Your task to perform on an android device: Search for "jbl flip 4" on walmart.com, select the first entry, and add it to the cart. Image 0: 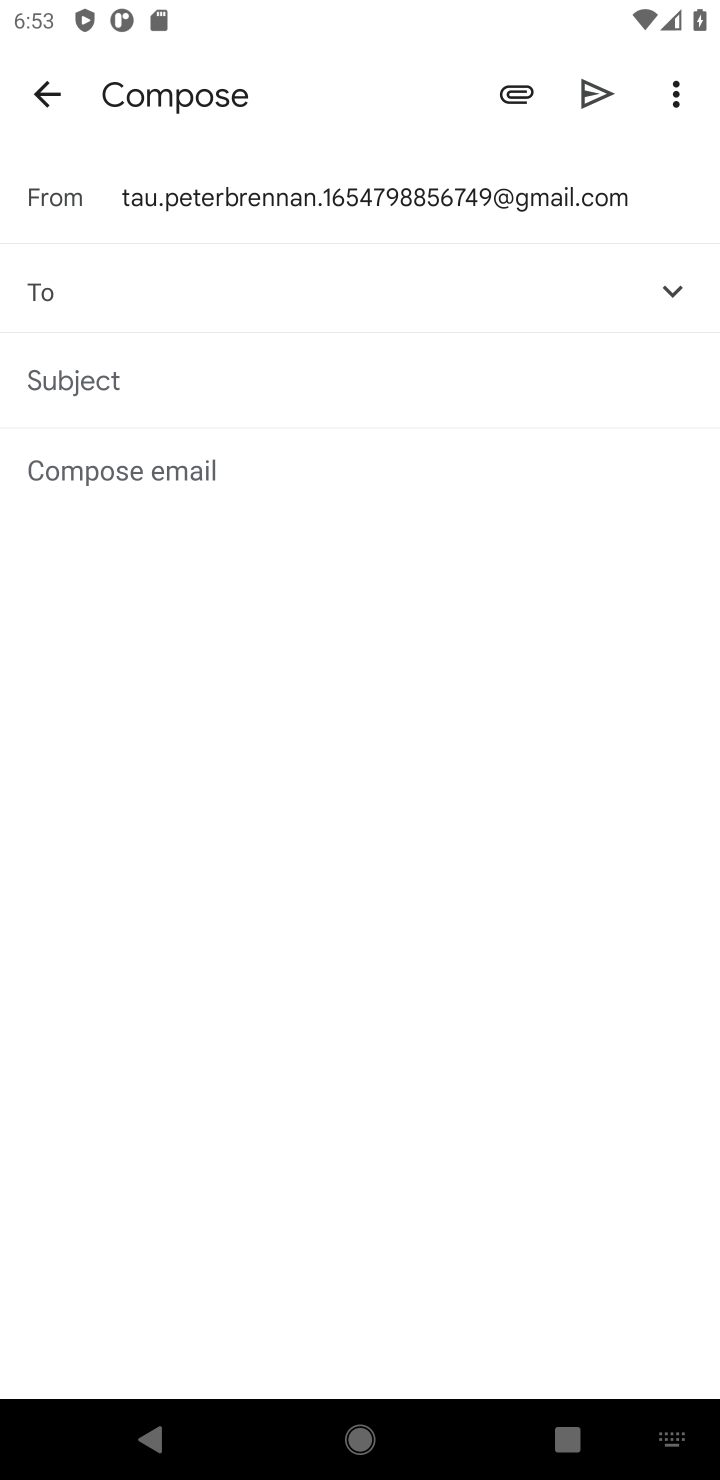
Step 0: press home button
Your task to perform on an android device: Search for "jbl flip 4" on walmart.com, select the first entry, and add it to the cart. Image 1: 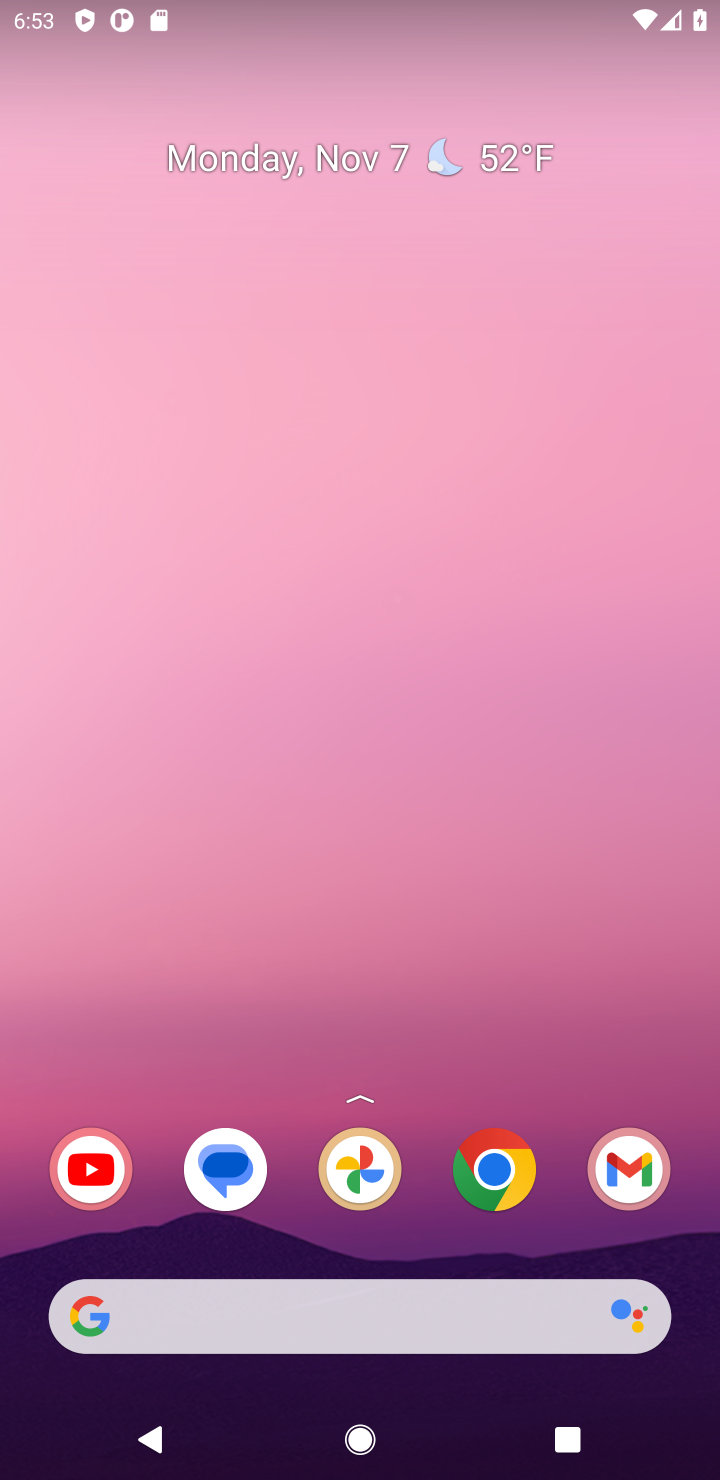
Step 1: click (502, 1163)
Your task to perform on an android device: Search for "jbl flip 4" on walmart.com, select the first entry, and add it to the cart. Image 2: 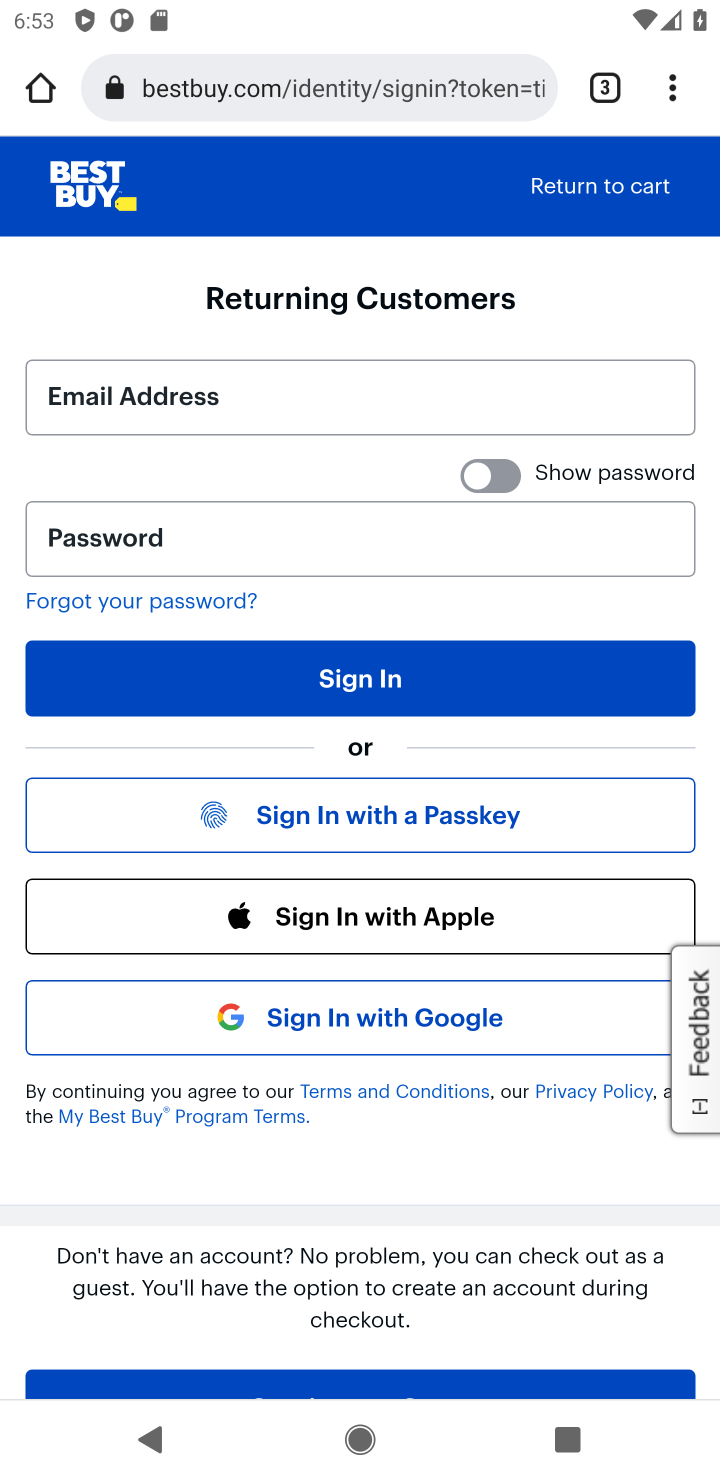
Step 2: click (598, 80)
Your task to perform on an android device: Search for "jbl flip 4" on walmart.com, select the first entry, and add it to the cart. Image 3: 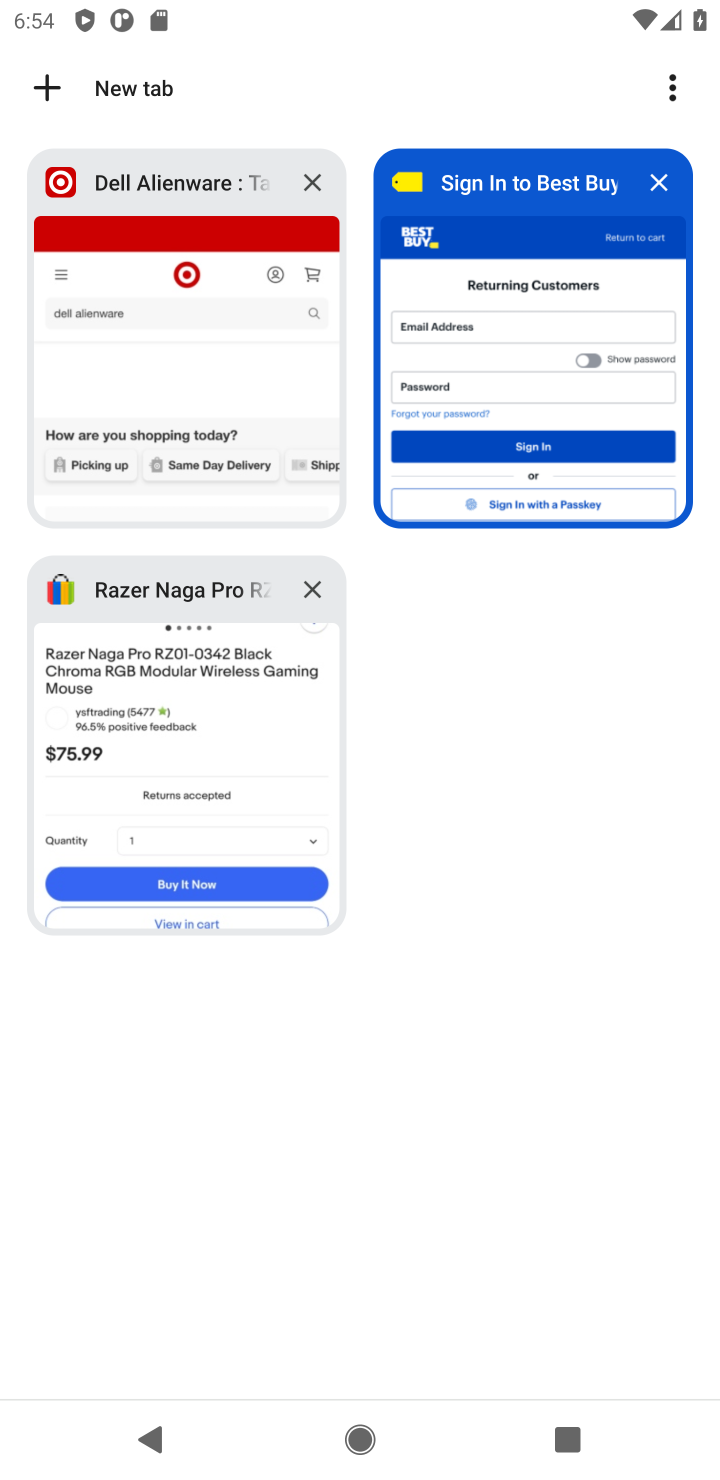
Step 3: click (46, 94)
Your task to perform on an android device: Search for "jbl flip 4" on walmart.com, select the first entry, and add it to the cart. Image 4: 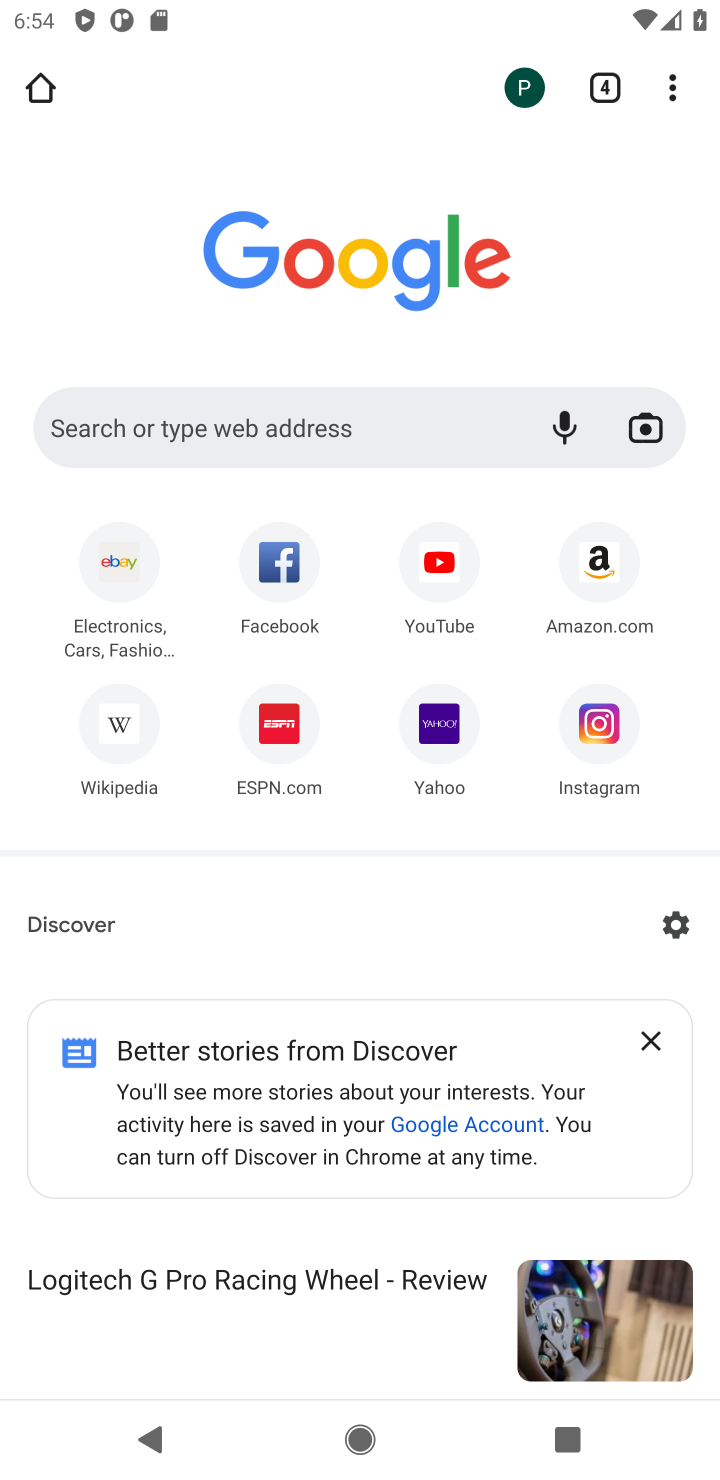
Step 4: click (249, 417)
Your task to perform on an android device: Search for "jbl flip 4" on walmart.com, select the first entry, and add it to the cart. Image 5: 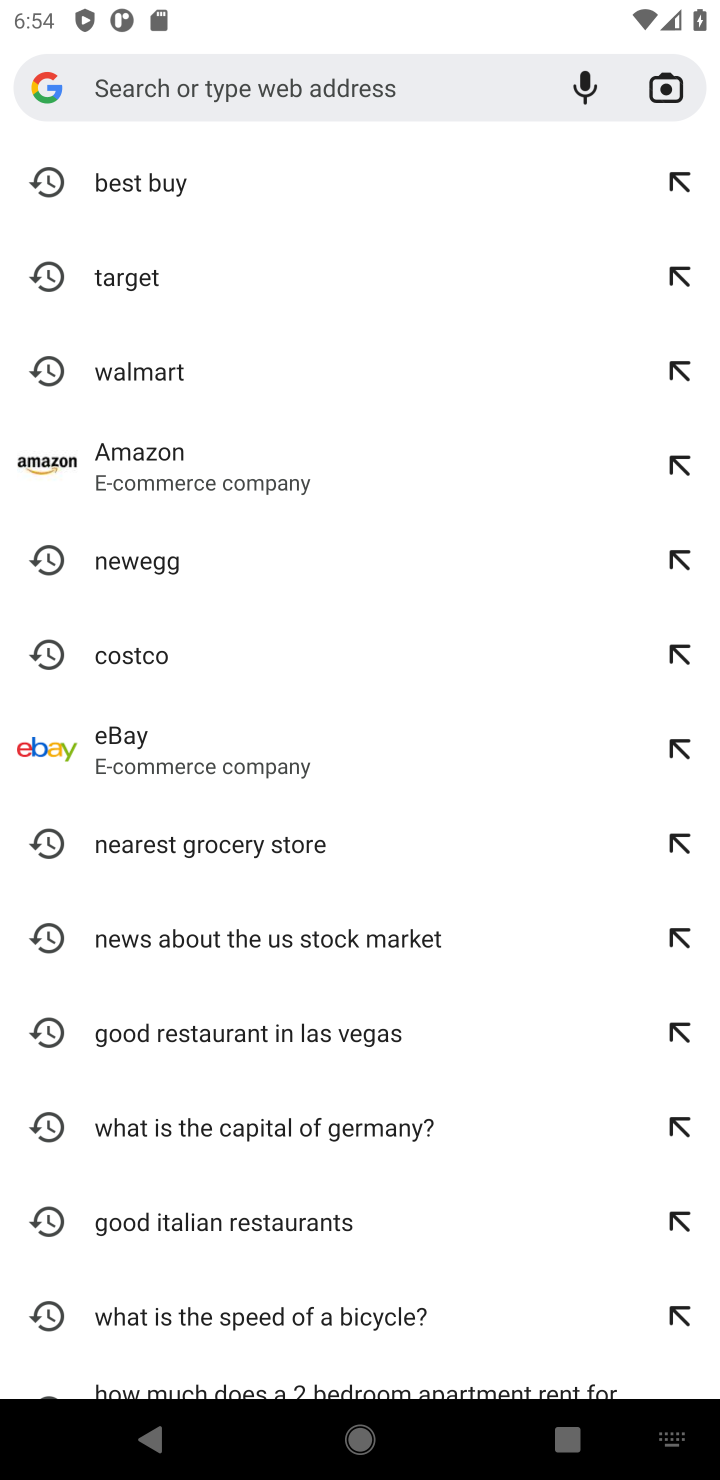
Step 5: click (166, 378)
Your task to perform on an android device: Search for "jbl flip 4" on walmart.com, select the first entry, and add it to the cart. Image 6: 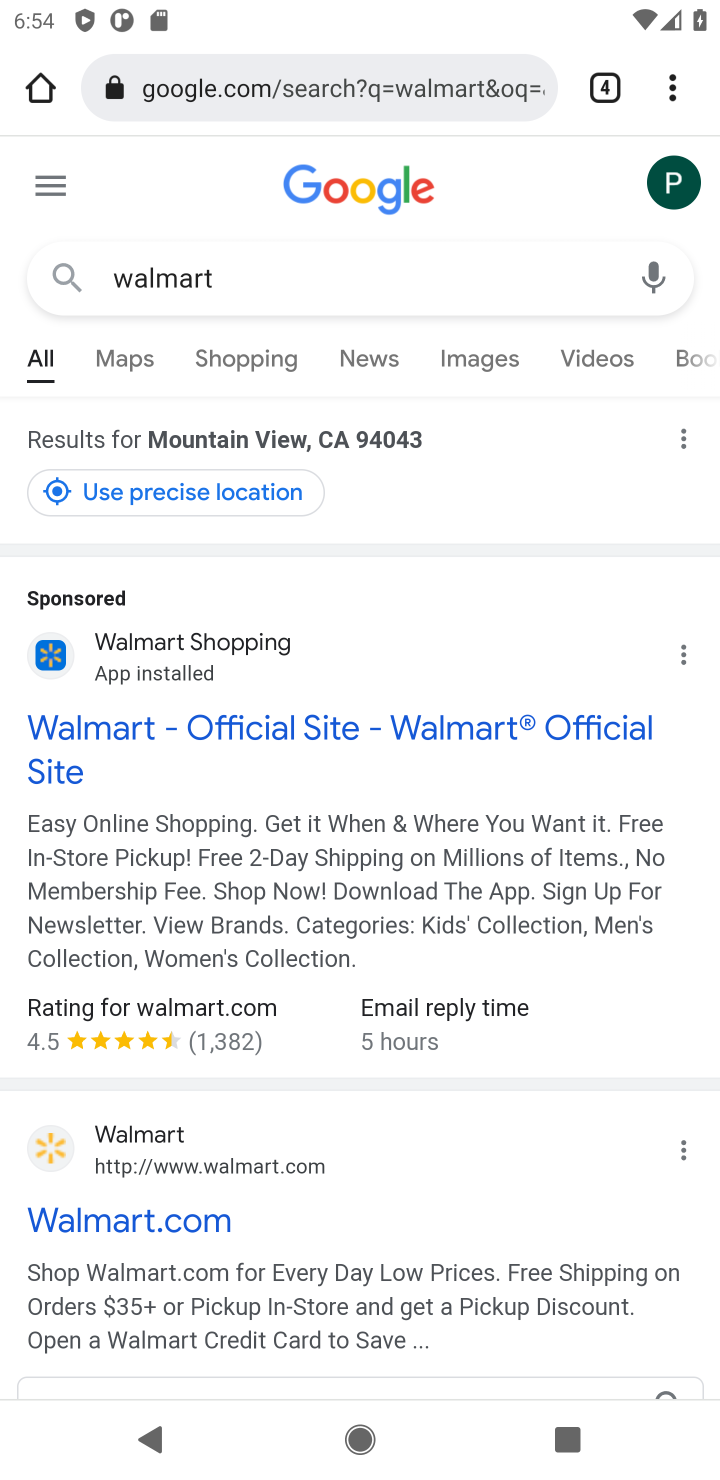
Step 6: drag from (241, 1342) to (438, 669)
Your task to perform on an android device: Search for "jbl flip 4" on walmart.com, select the first entry, and add it to the cart. Image 7: 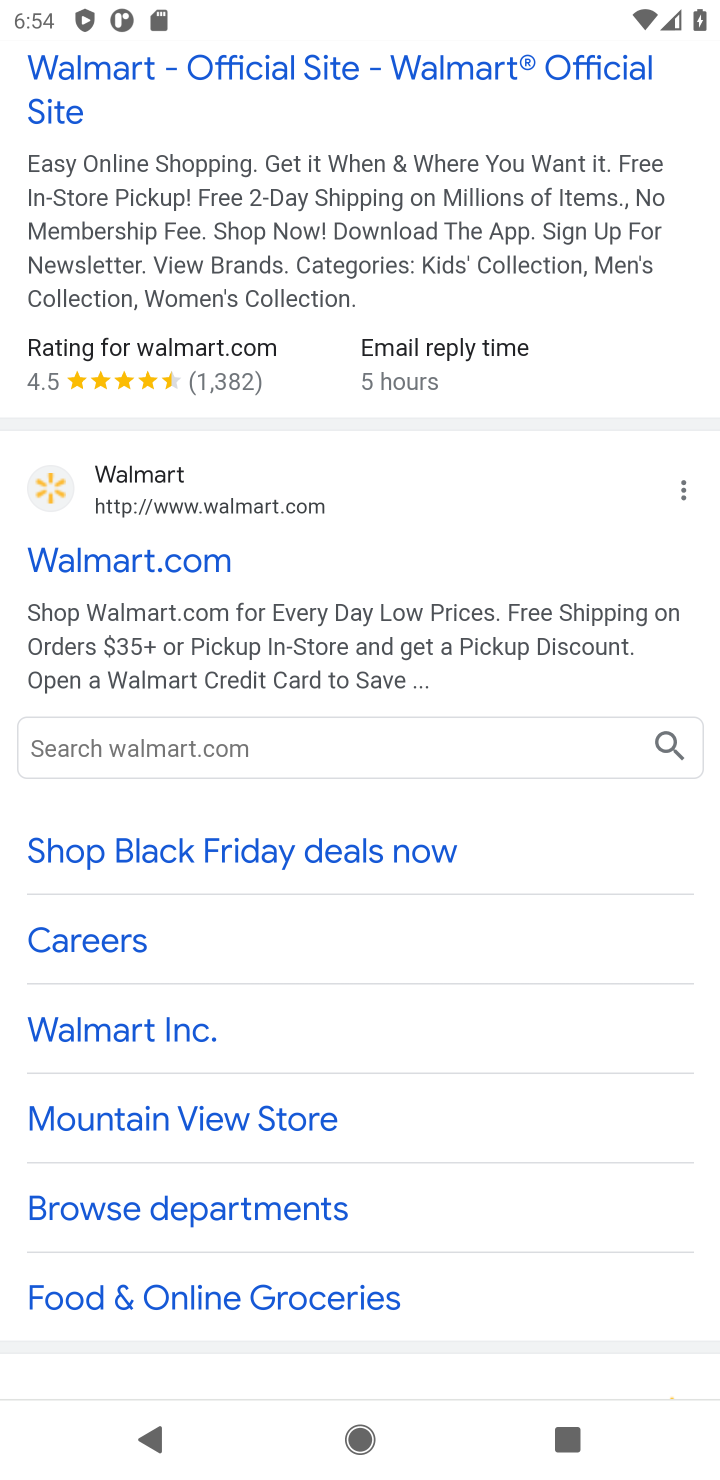
Step 7: click (59, 740)
Your task to perform on an android device: Search for "jbl flip 4" on walmart.com, select the first entry, and add it to the cart. Image 8: 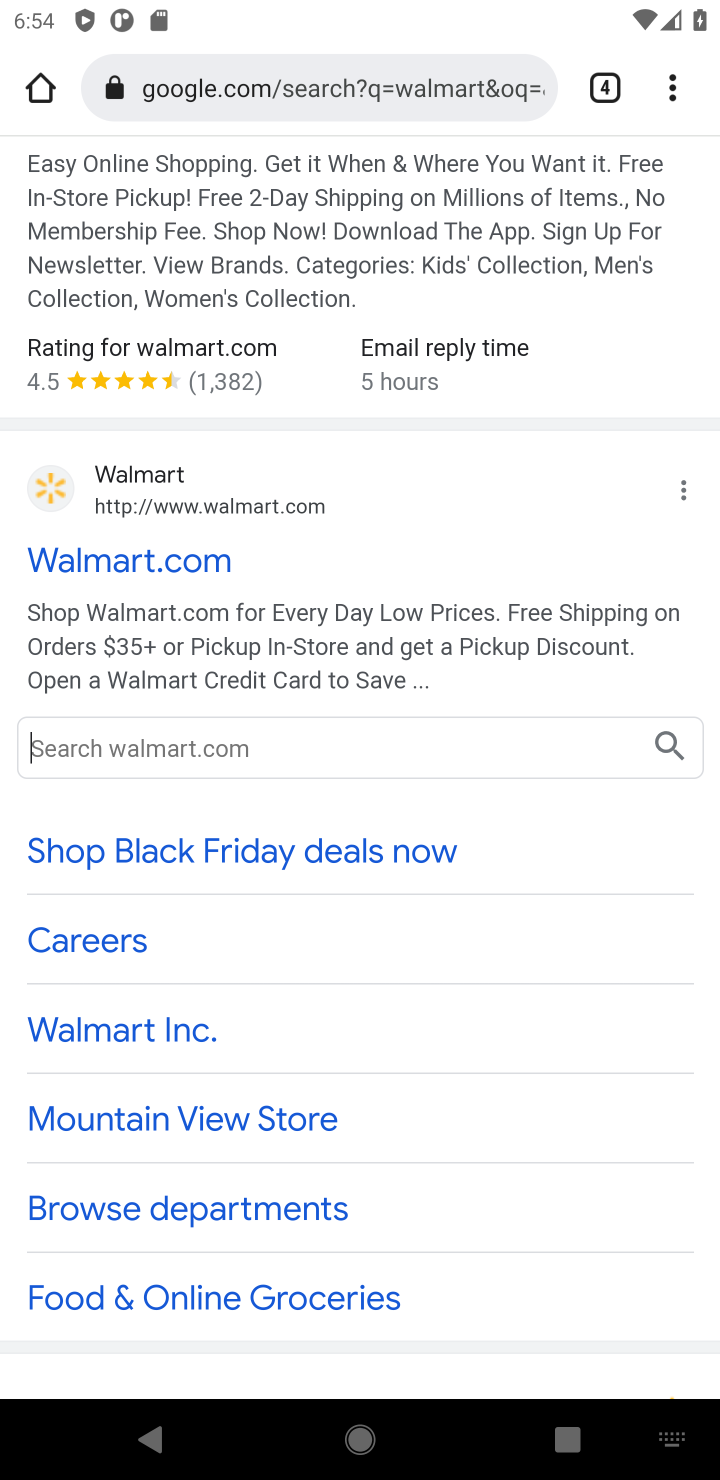
Step 8: type "jbl flip 4"
Your task to perform on an android device: Search for "jbl flip 4" on walmart.com, select the first entry, and add it to the cart. Image 9: 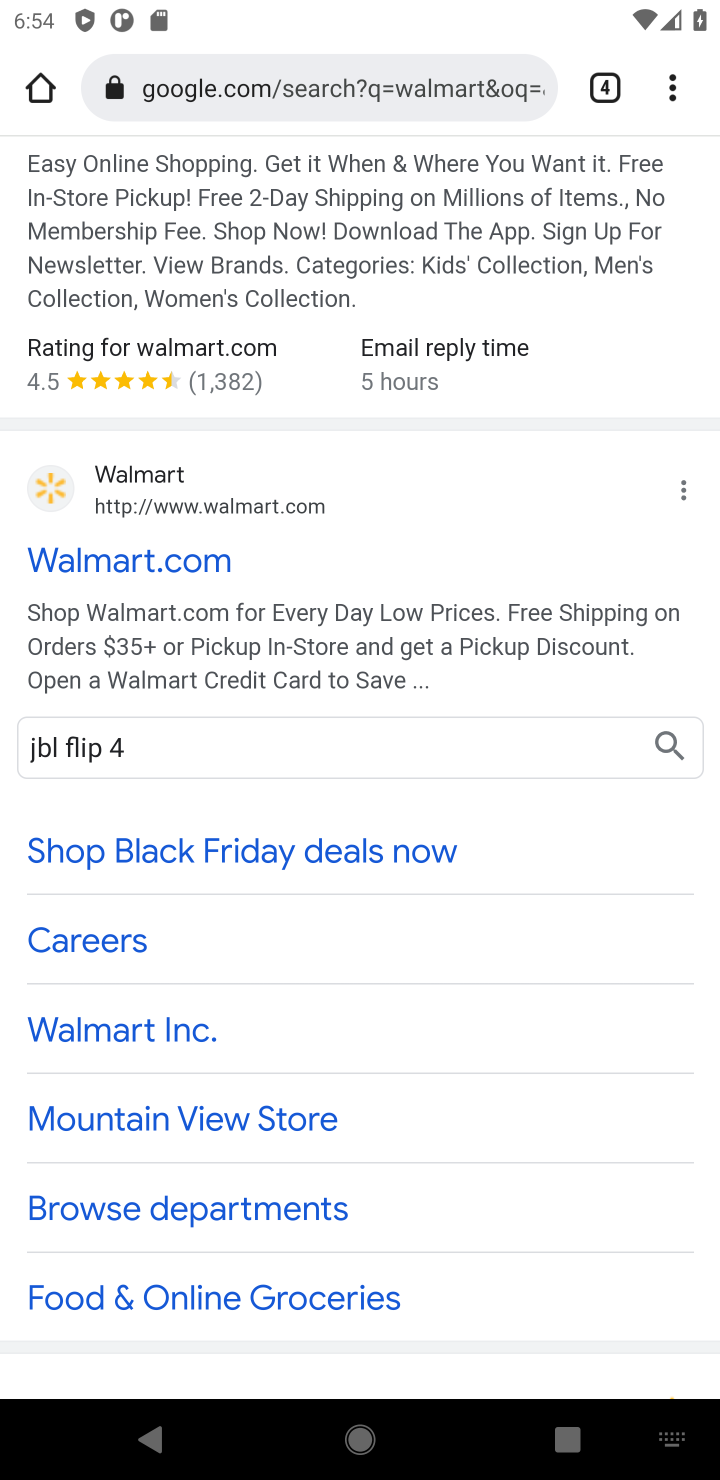
Step 9: click (679, 730)
Your task to perform on an android device: Search for "jbl flip 4" on walmart.com, select the first entry, and add it to the cart. Image 10: 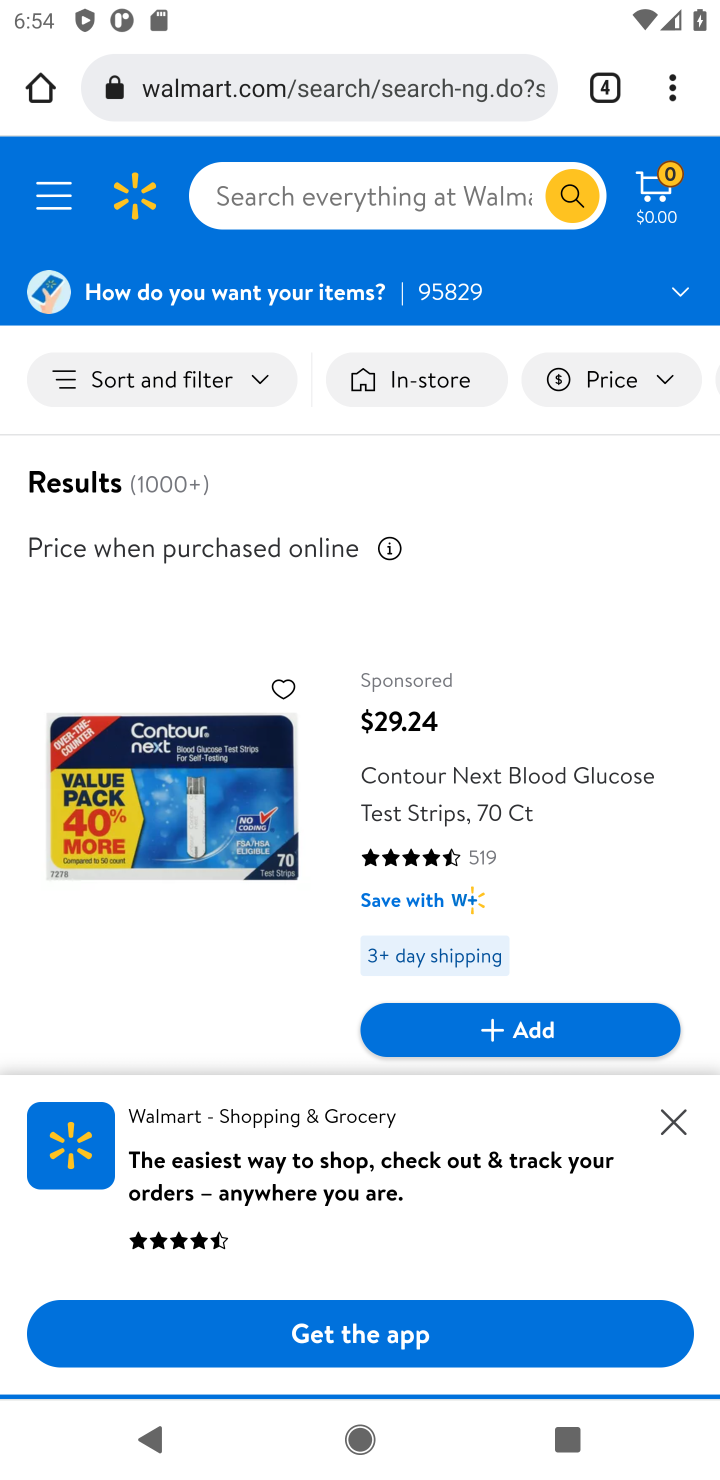
Step 10: click (672, 1111)
Your task to perform on an android device: Search for "jbl flip 4" on walmart.com, select the first entry, and add it to the cart. Image 11: 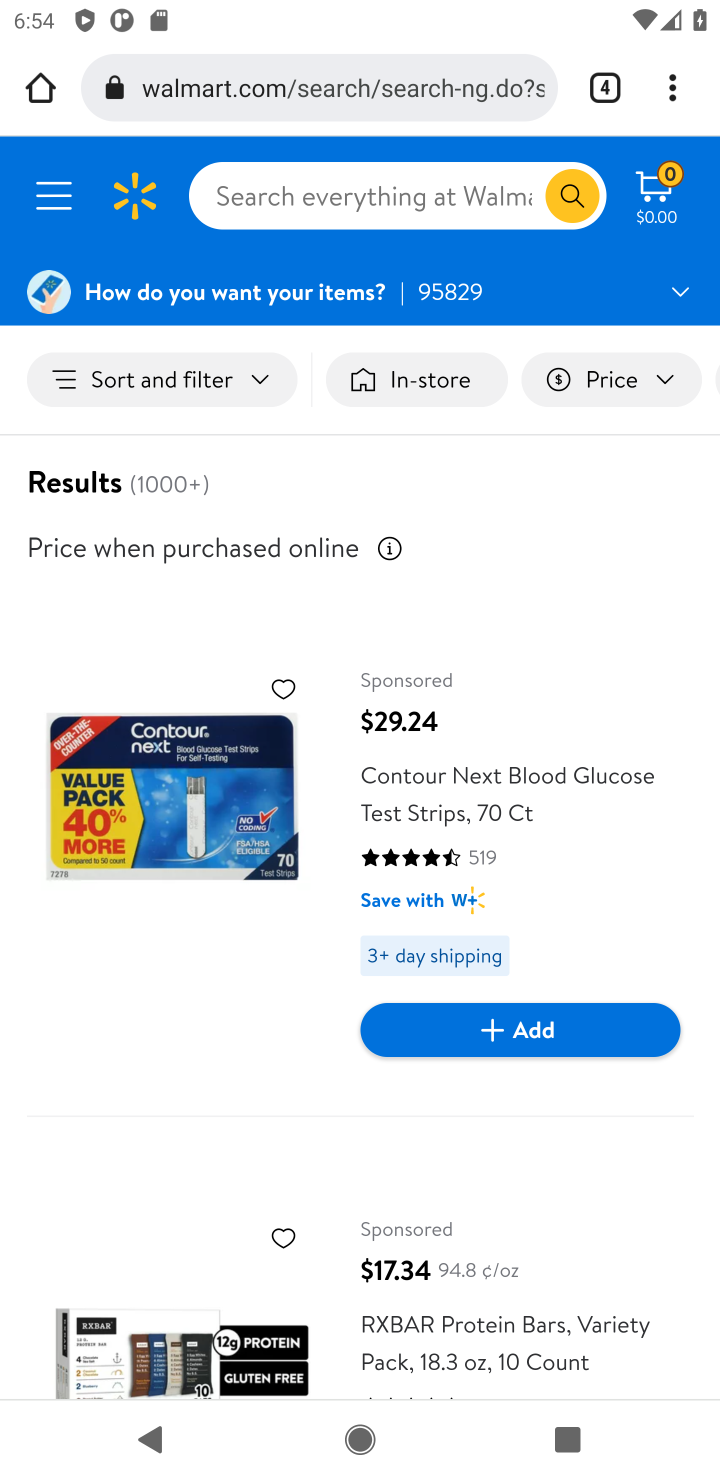
Step 11: click (317, 186)
Your task to perform on an android device: Search for "jbl flip 4" on walmart.com, select the first entry, and add it to the cart. Image 12: 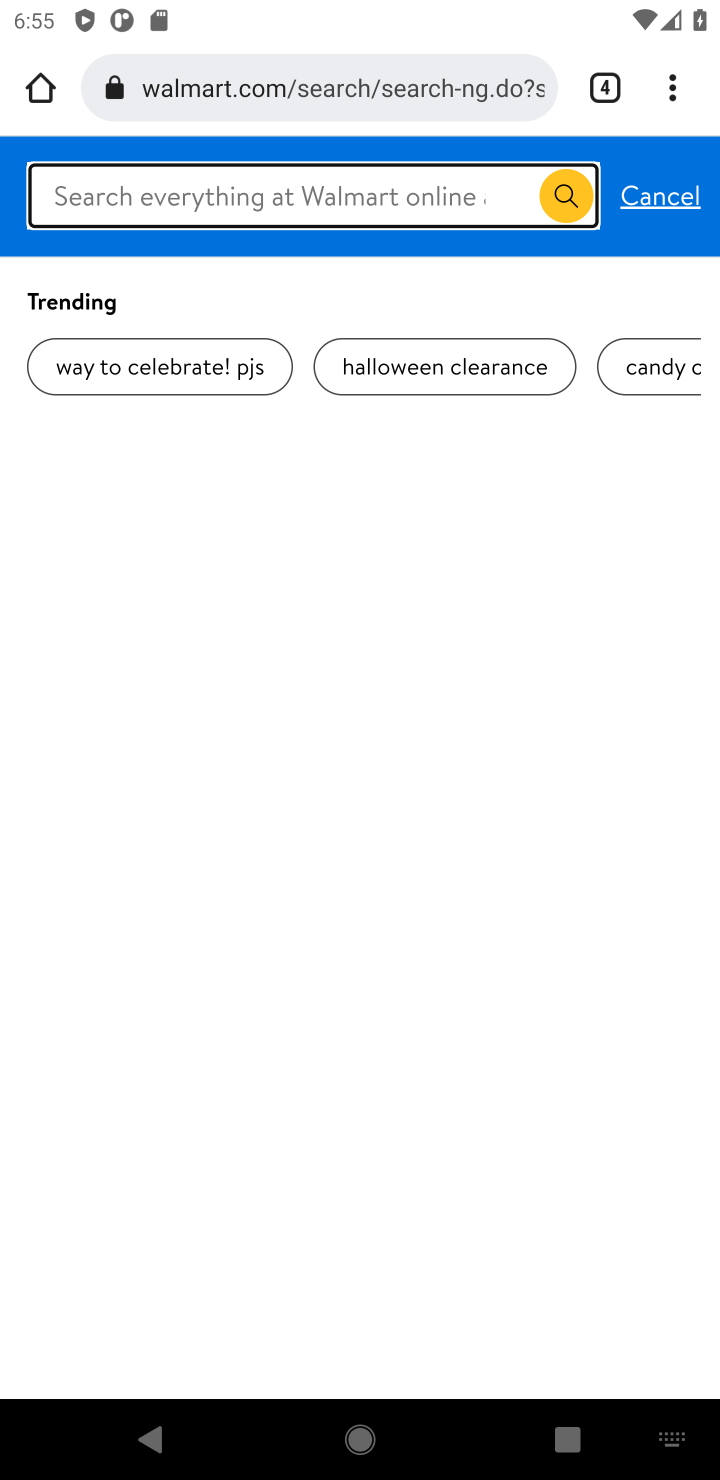
Step 12: type "jbl flip 4"
Your task to perform on an android device: Search for "jbl flip 4" on walmart.com, select the first entry, and add it to the cart. Image 13: 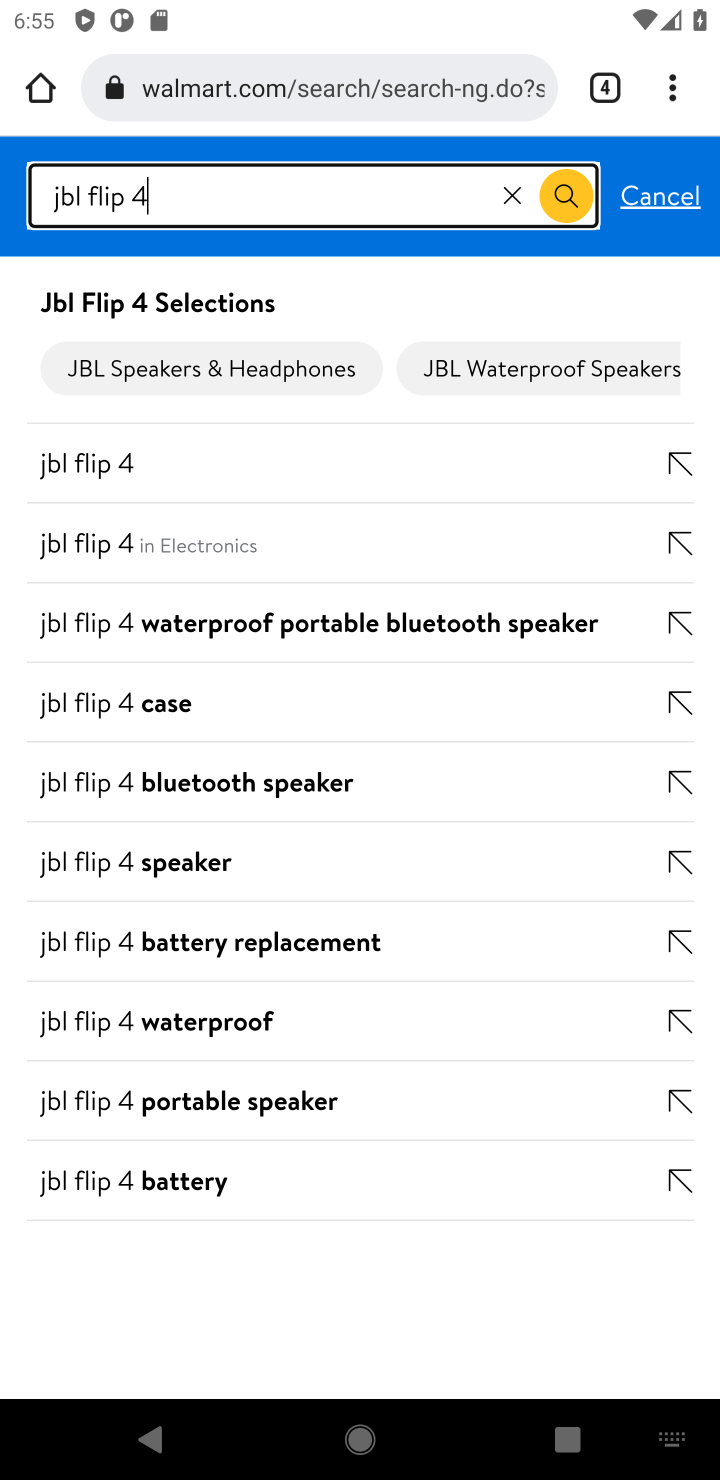
Step 13: click (96, 523)
Your task to perform on an android device: Search for "jbl flip 4" on walmart.com, select the first entry, and add it to the cart. Image 14: 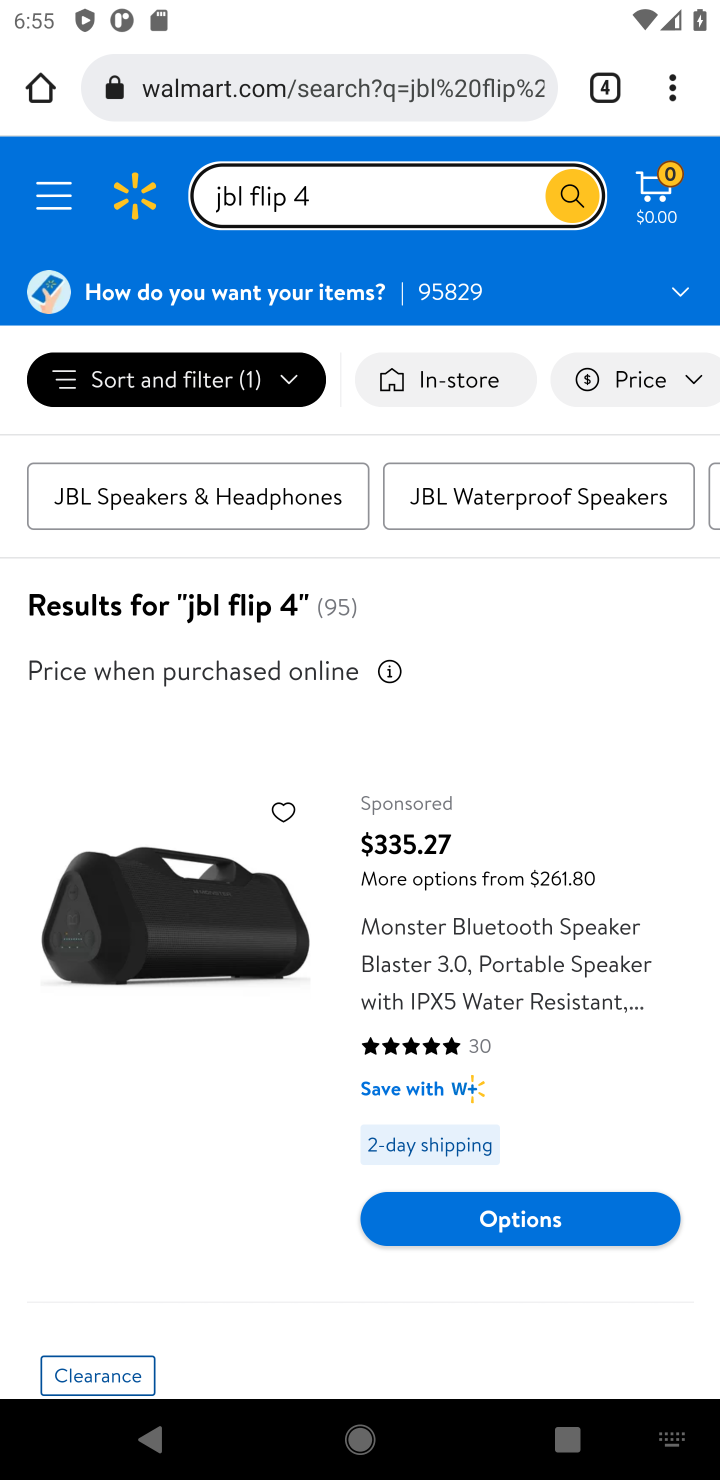
Step 14: click (511, 991)
Your task to perform on an android device: Search for "jbl flip 4" on walmart.com, select the first entry, and add it to the cart. Image 15: 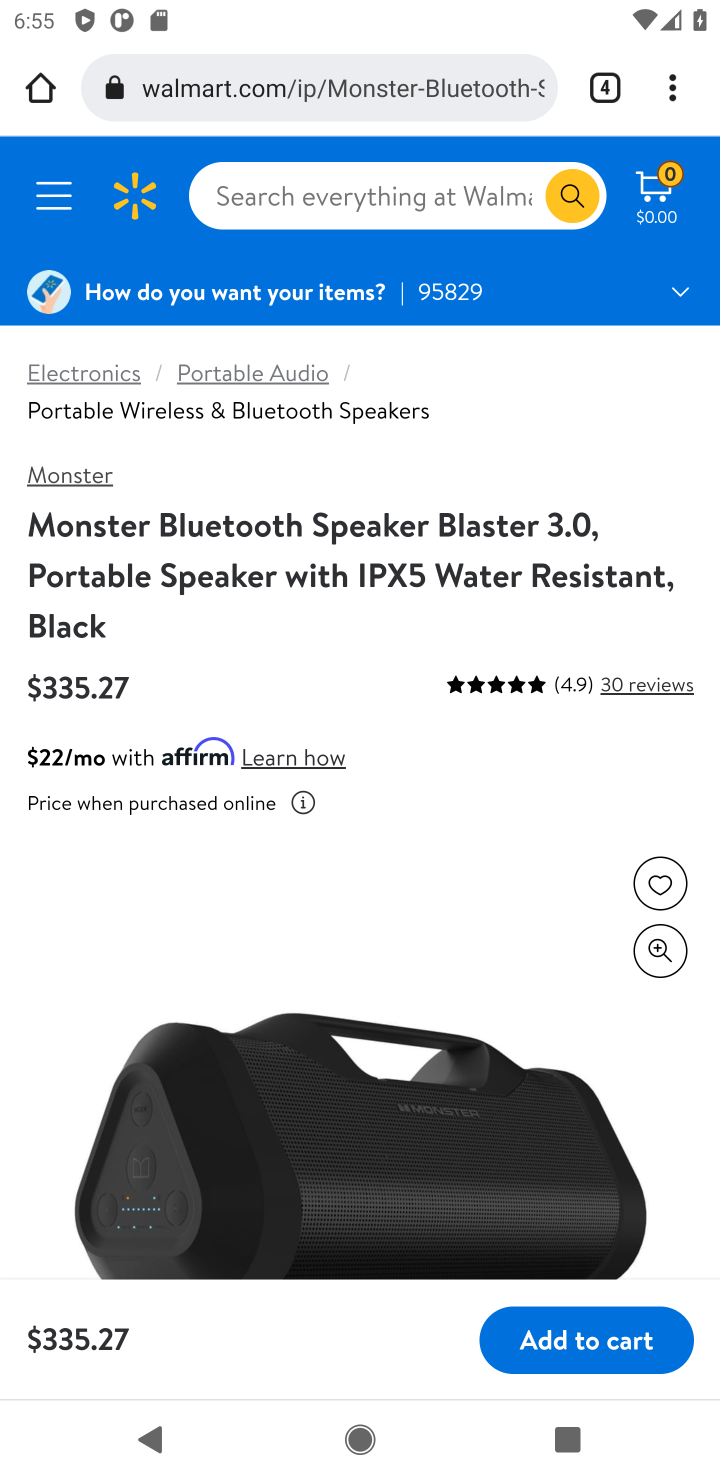
Step 15: click (552, 1343)
Your task to perform on an android device: Search for "jbl flip 4" on walmart.com, select the first entry, and add it to the cart. Image 16: 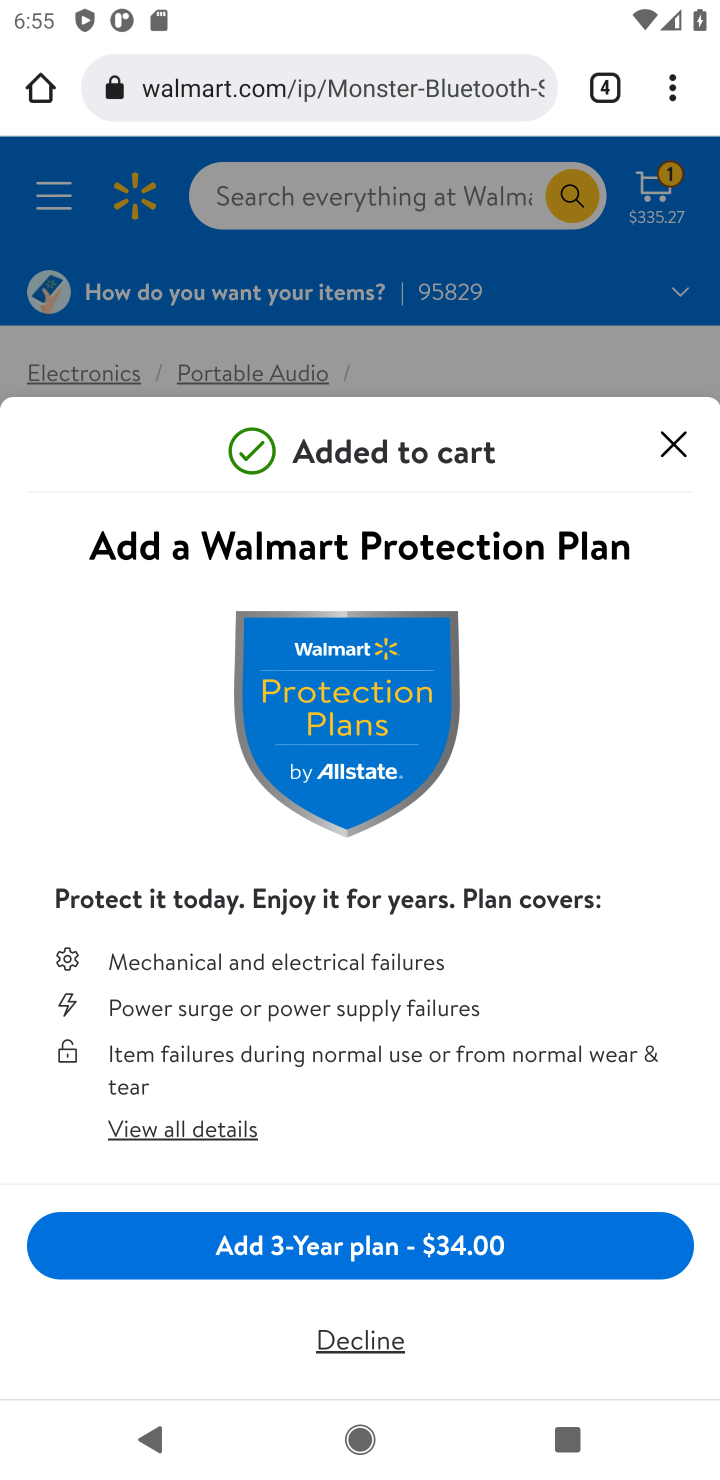
Step 16: task complete